Your task to perform on an android device: Search for sushi restaurants on Maps Image 0: 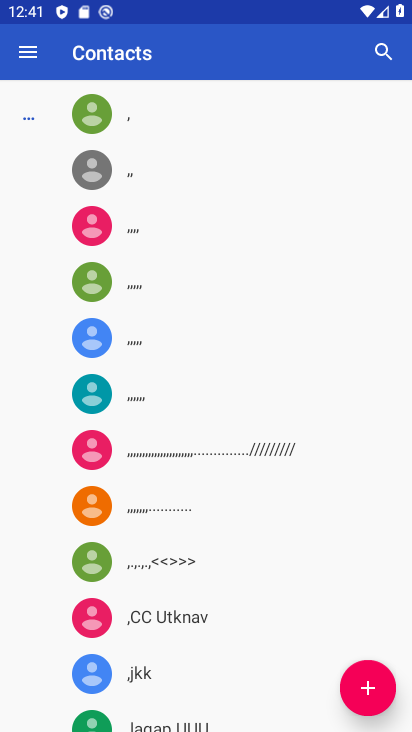
Step 0: press back button
Your task to perform on an android device: Search for sushi restaurants on Maps Image 1: 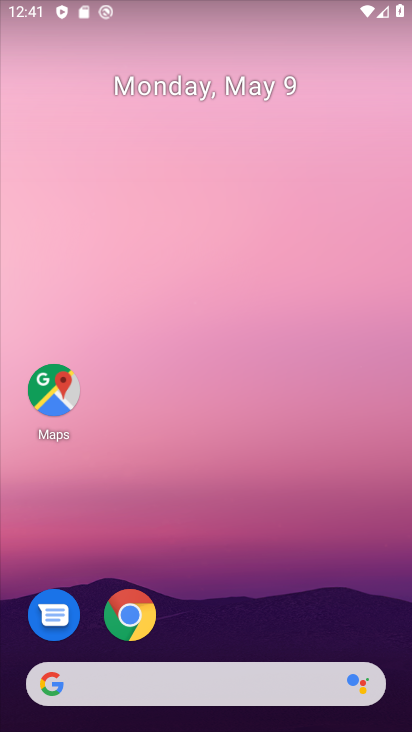
Step 1: click (55, 392)
Your task to perform on an android device: Search for sushi restaurants on Maps Image 2: 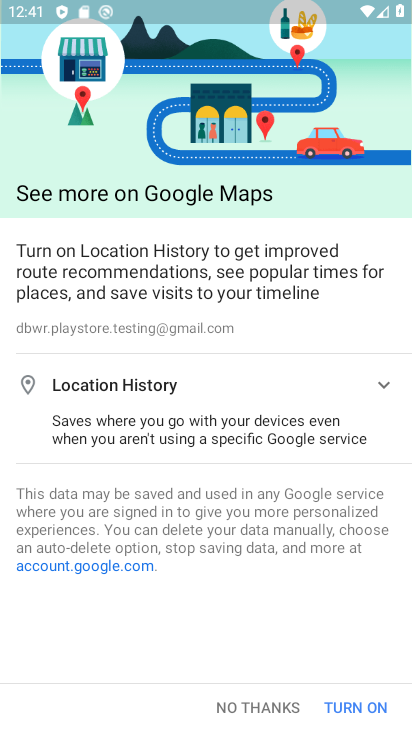
Step 2: click (114, 49)
Your task to perform on an android device: Search for sushi restaurants on Maps Image 3: 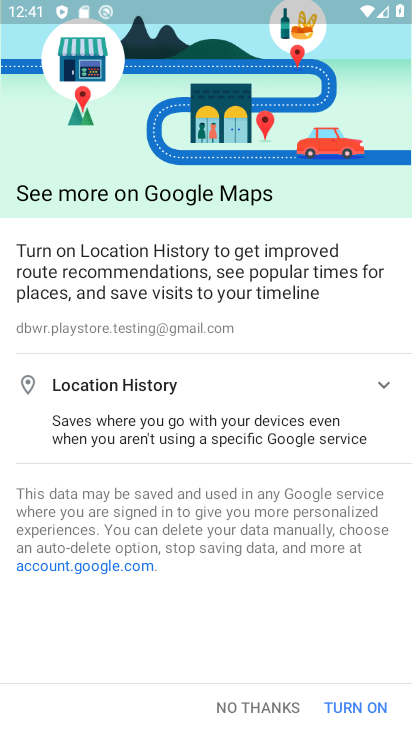
Step 3: click (244, 705)
Your task to perform on an android device: Search for sushi restaurants on Maps Image 4: 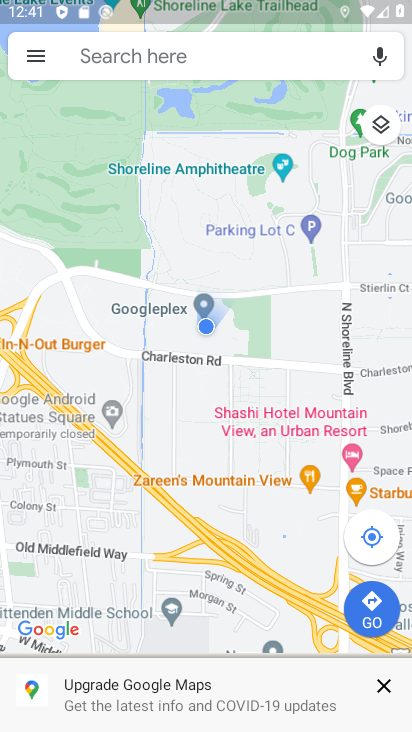
Step 4: click (185, 63)
Your task to perform on an android device: Search for sushi restaurants on Maps Image 5: 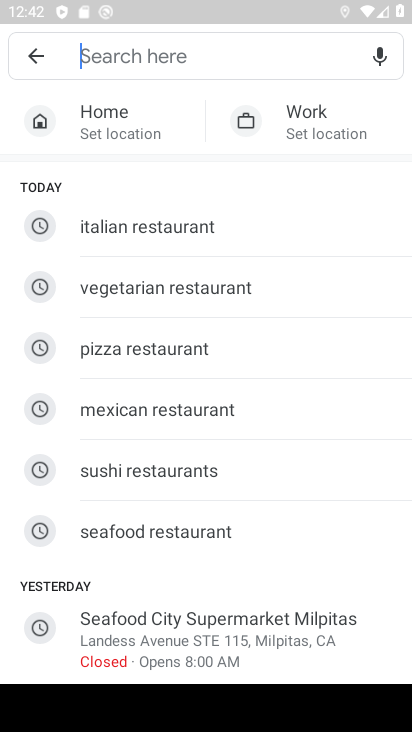
Step 5: type "sushi restaurants"
Your task to perform on an android device: Search for sushi restaurants on Maps Image 6: 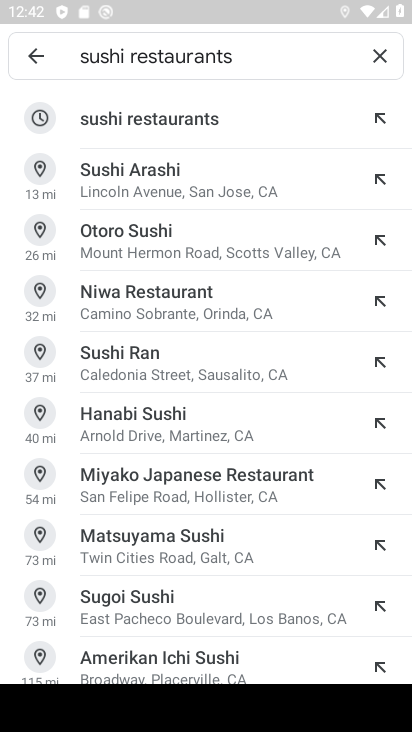
Step 6: click (194, 120)
Your task to perform on an android device: Search for sushi restaurants on Maps Image 7: 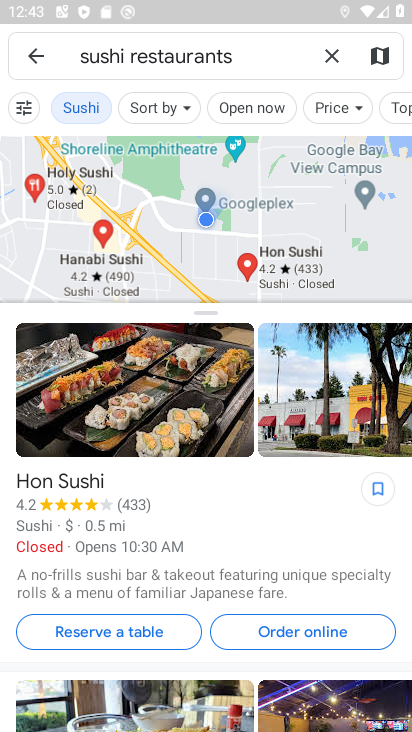
Step 7: task complete